Your task to perform on an android device: Go to wifi settings Image 0: 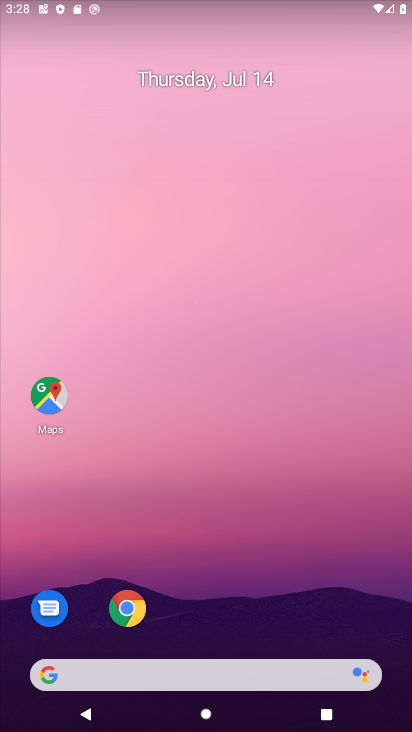
Step 0: drag from (304, 3) to (264, 472)
Your task to perform on an android device: Go to wifi settings Image 1: 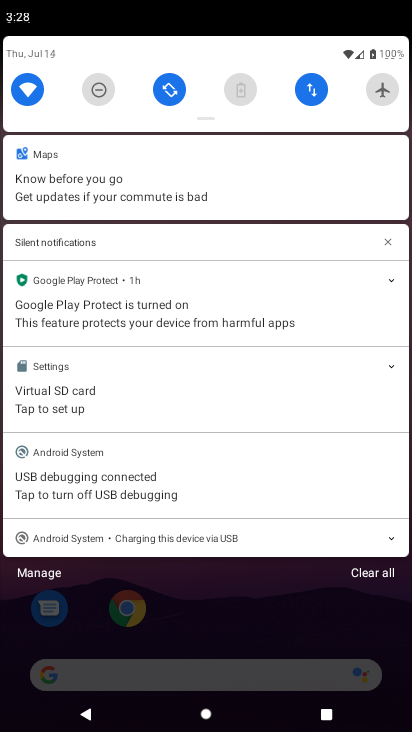
Step 1: click (38, 95)
Your task to perform on an android device: Go to wifi settings Image 2: 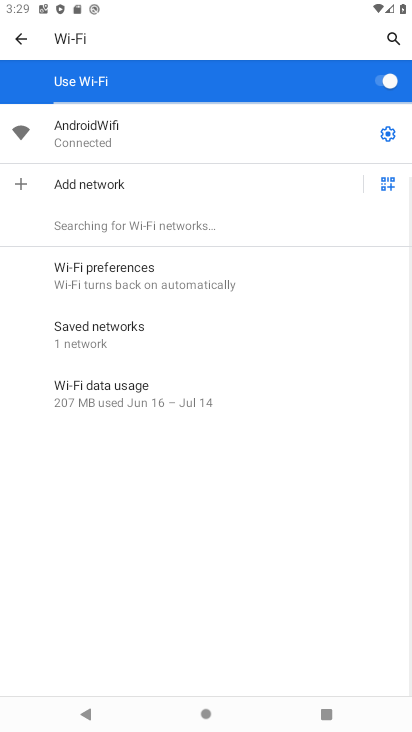
Step 2: click (395, 135)
Your task to perform on an android device: Go to wifi settings Image 3: 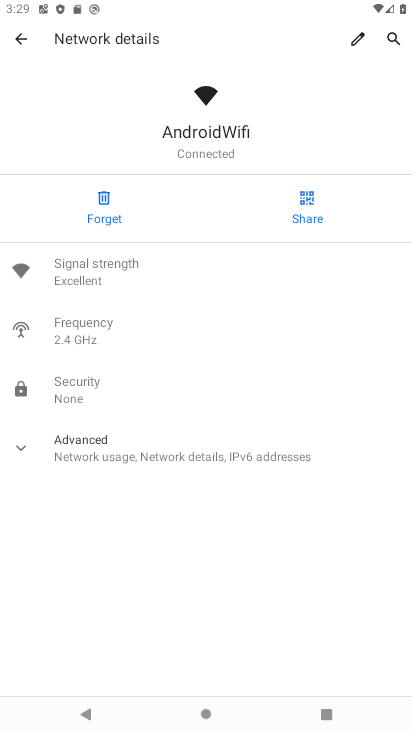
Step 3: task complete